Your task to perform on an android device: Set the phone to "Do not disturb". Image 0: 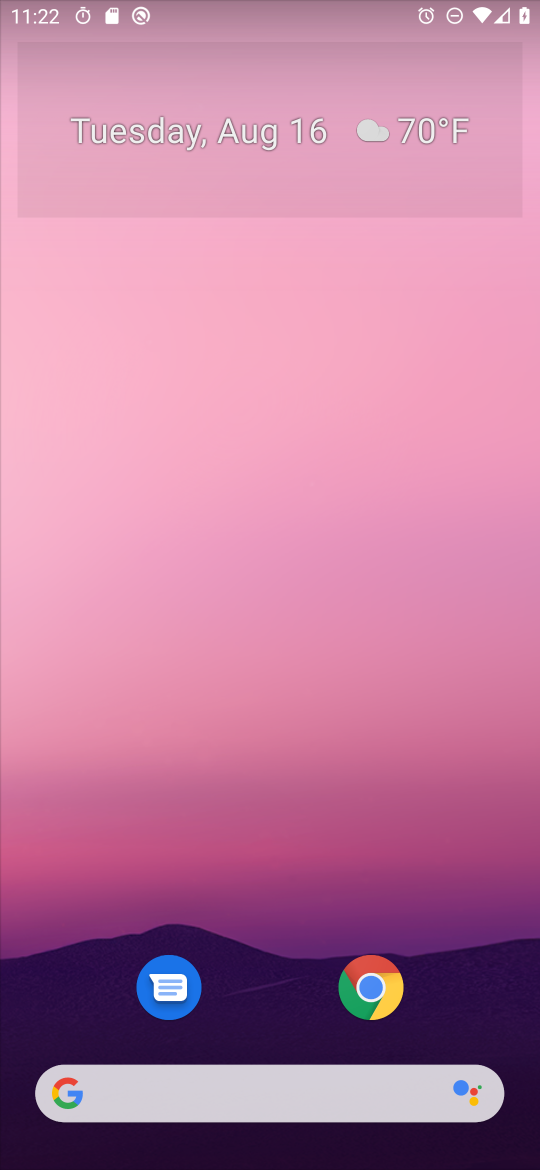
Step 0: drag from (118, 899) to (304, 373)
Your task to perform on an android device: Set the phone to "Do not disturb". Image 1: 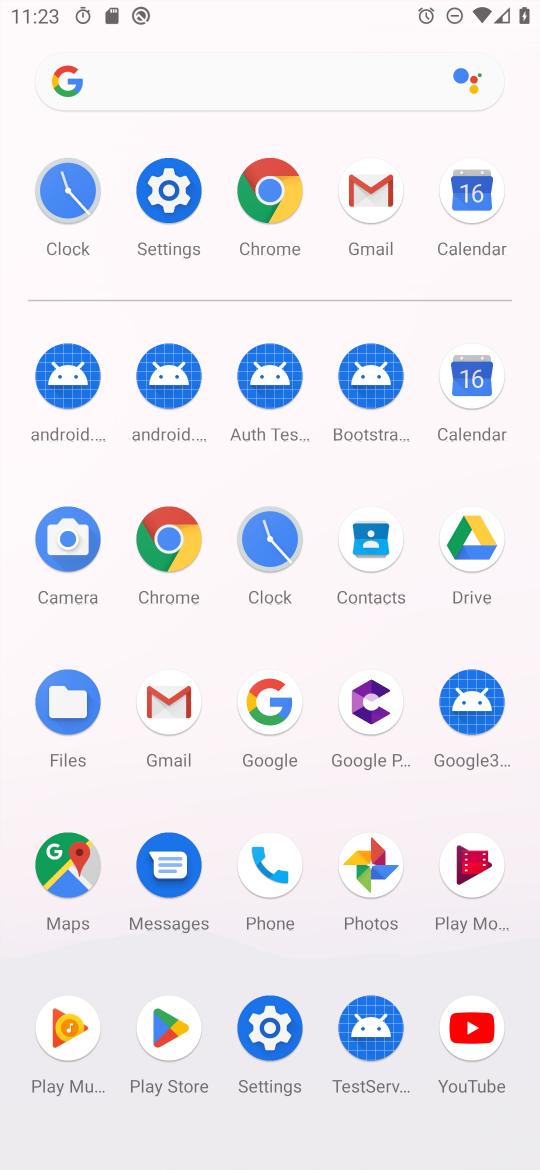
Step 1: click (278, 1025)
Your task to perform on an android device: Set the phone to "Do not disturb". Image 2: 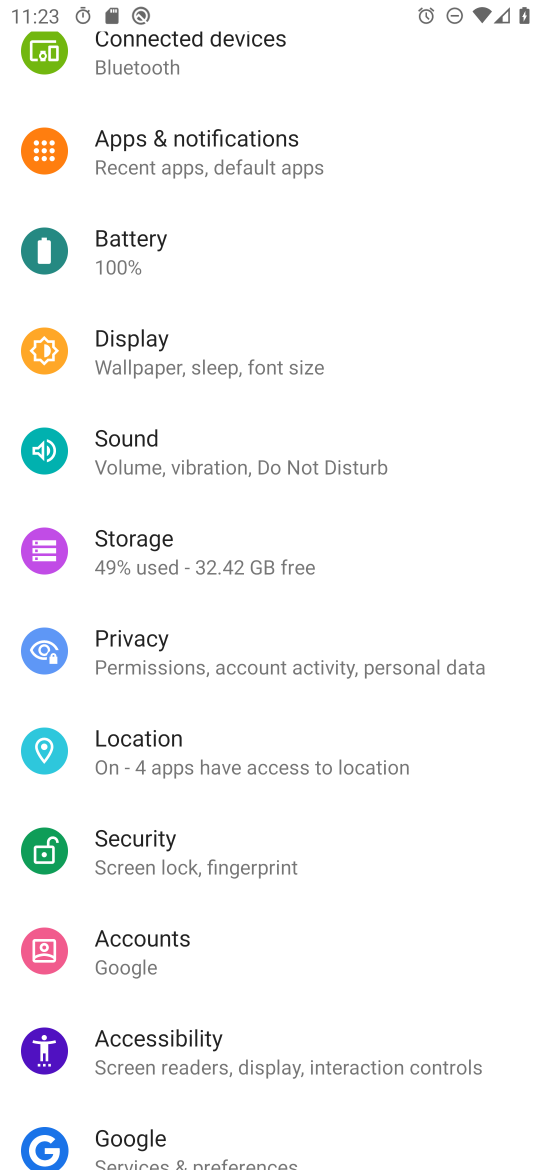
Step 2: click (214, 445)
Your task to perform on an android device: Set the phone to "Do not disturb". Image 3: 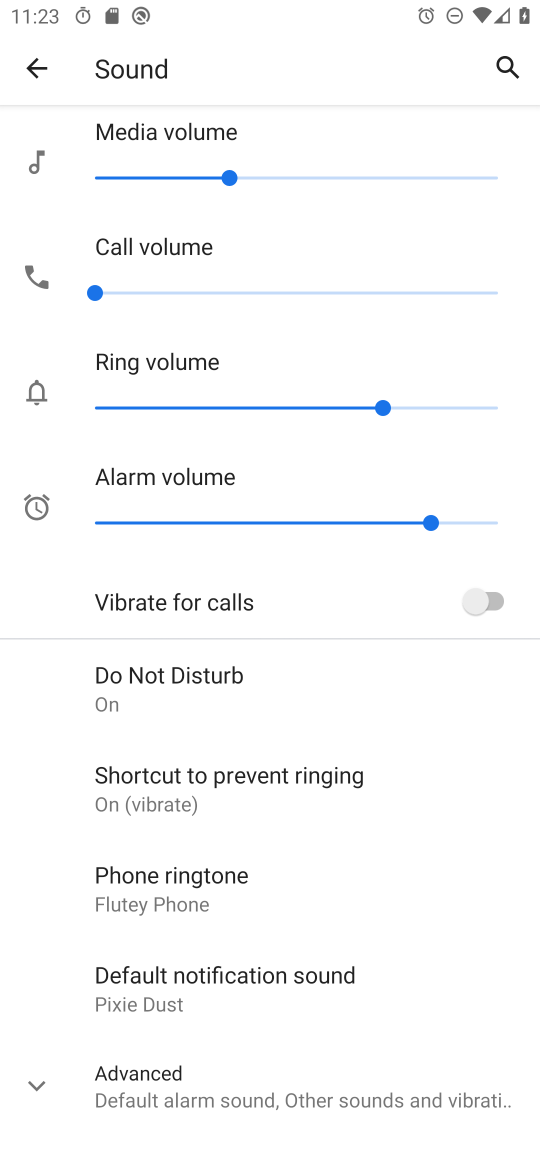
Step 3: click (159, 687)
Your task to perform on an android device: Set the phone to "Do not disturb". Image 4: 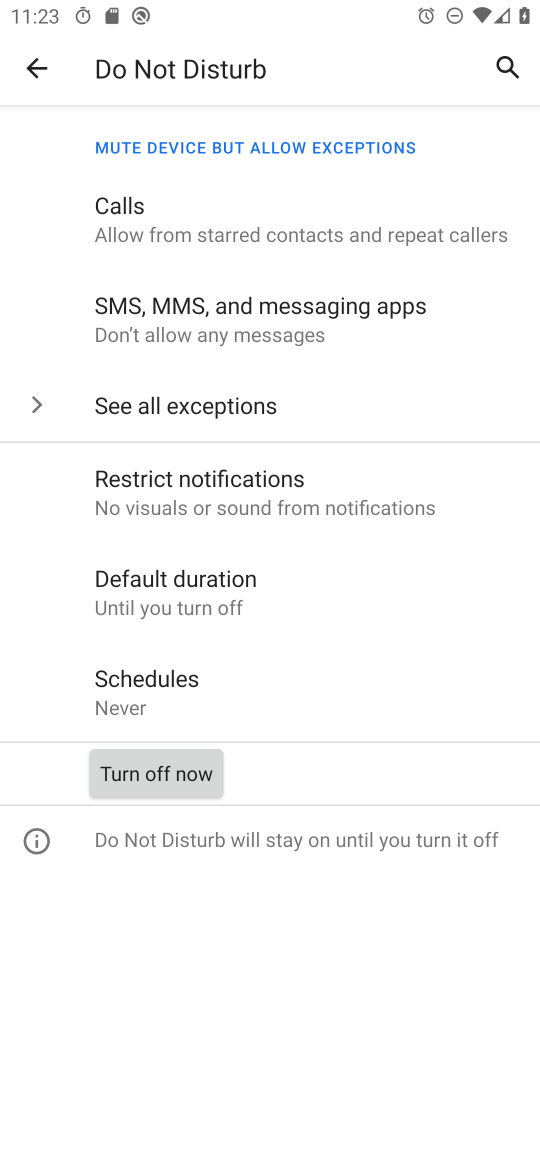
Step 4: click (189, 768)
Your task to perform on an android device: Set the phone to "Do not disturb". Image 5: 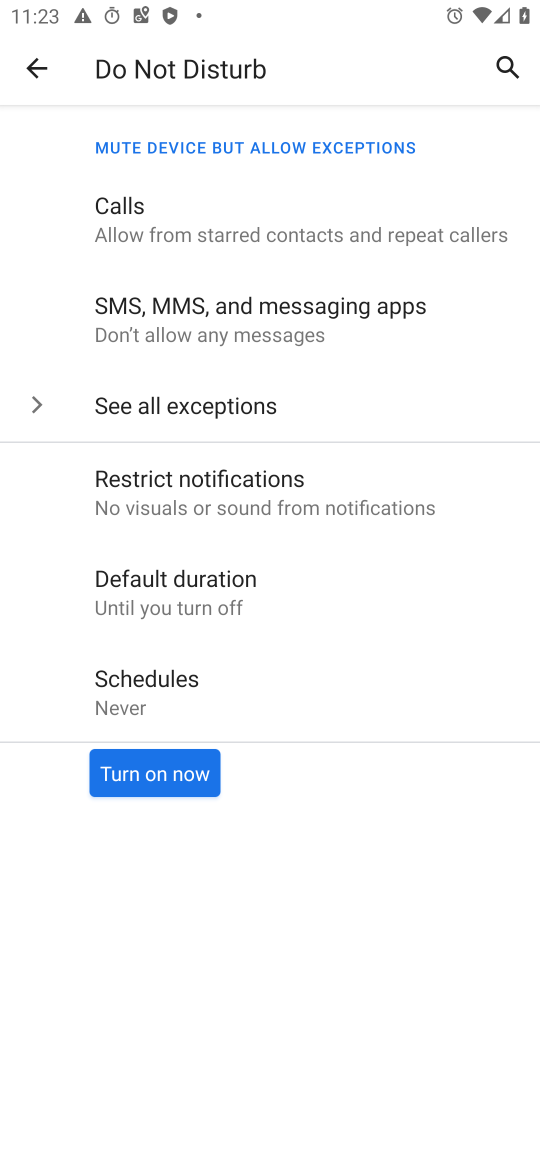
Step 5: task complete